Your task to perform on an android device: Open Android settings Image 0: 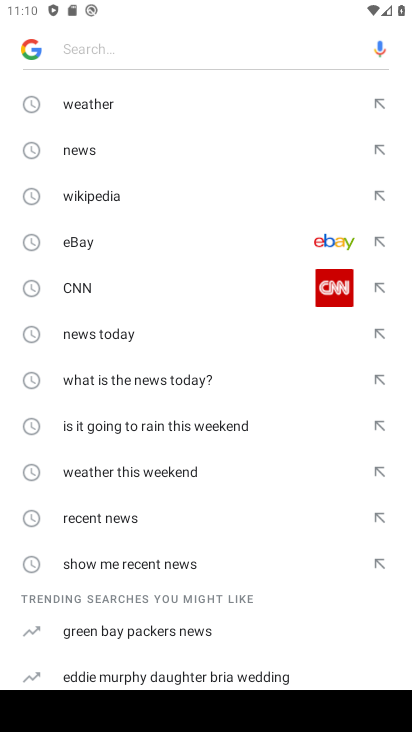
Step 0: press home button
Your task to perform on an android device: Open Android settings Image 1: 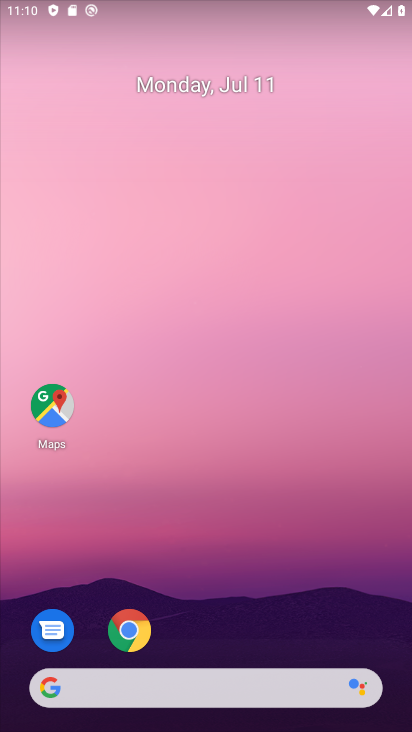
Step 1: drag from (368, 627) to (344, 97)
Your task to perform on an android device: Open Android settings Image 2: 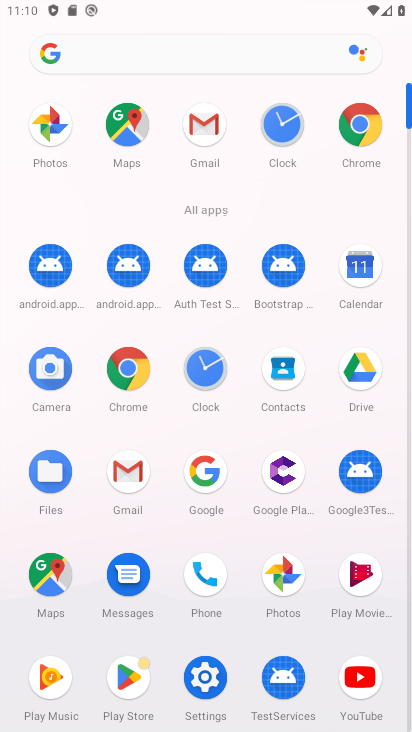
Step 2: click (201, 663)
Your task to perform on an android device: Open Android settings Image 3: 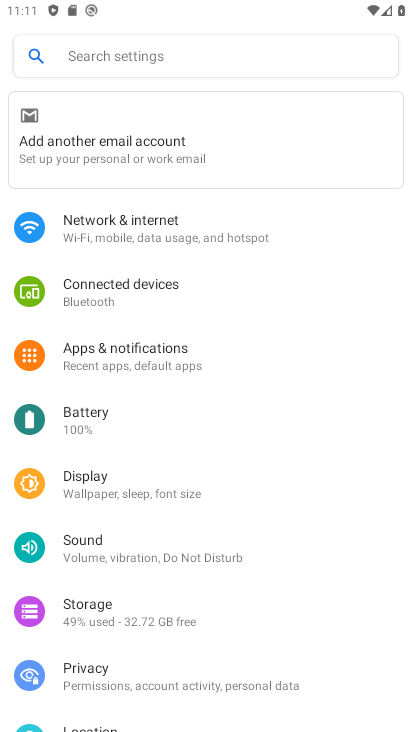
Step 3: task complete